Your task to perform on an android device: Go to Google maps Image 0: 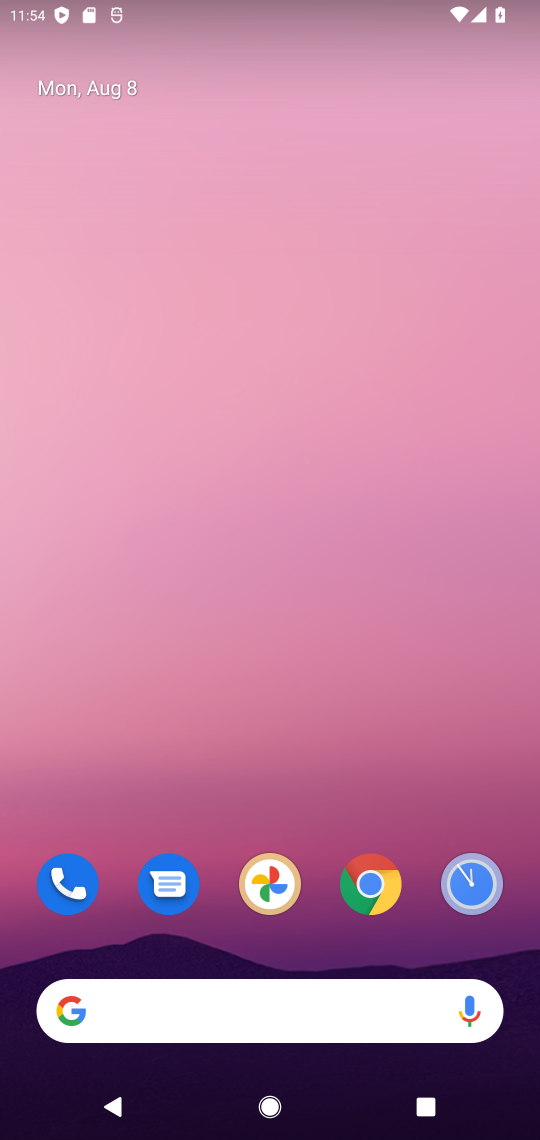
Step 0: drag from (166, 1102) to (263, 261)
Your task to perform on an android device: Go to Google maps Image 1: 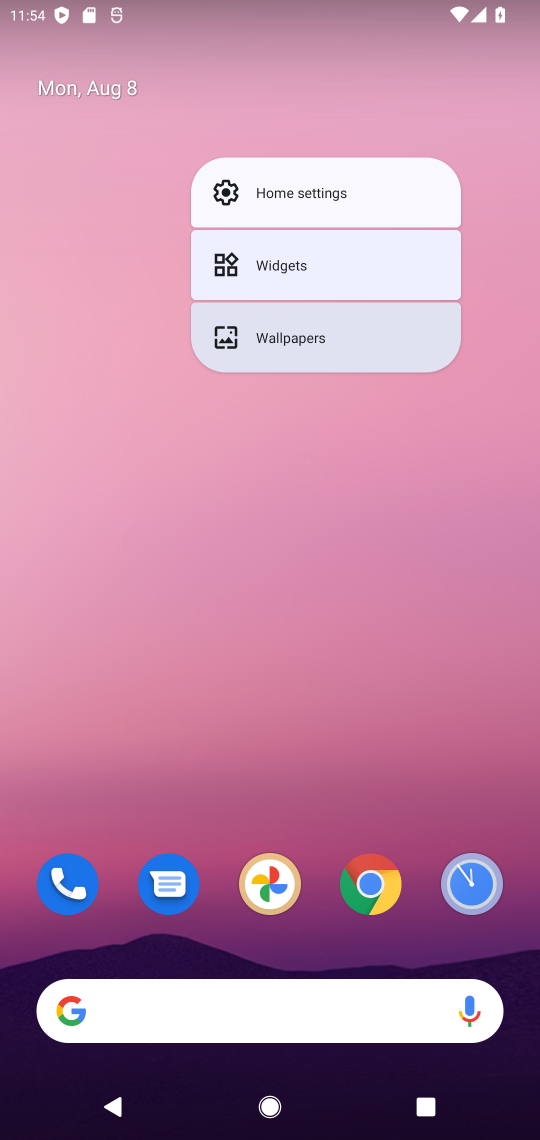
Step 1: drag from (359, 1094) to (369, 360)
Your task to perform on an android device: Go to Google maps Image 2: 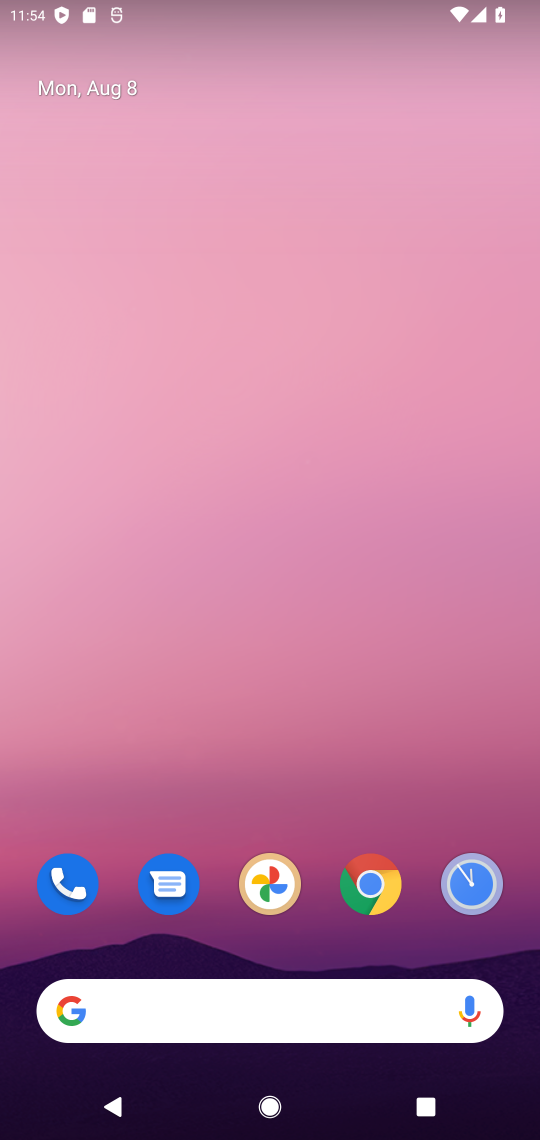
Step 2: drag from (171, 1105) to (275, 262)
Your task to perform on an android device: Go to Google maps Image 3: 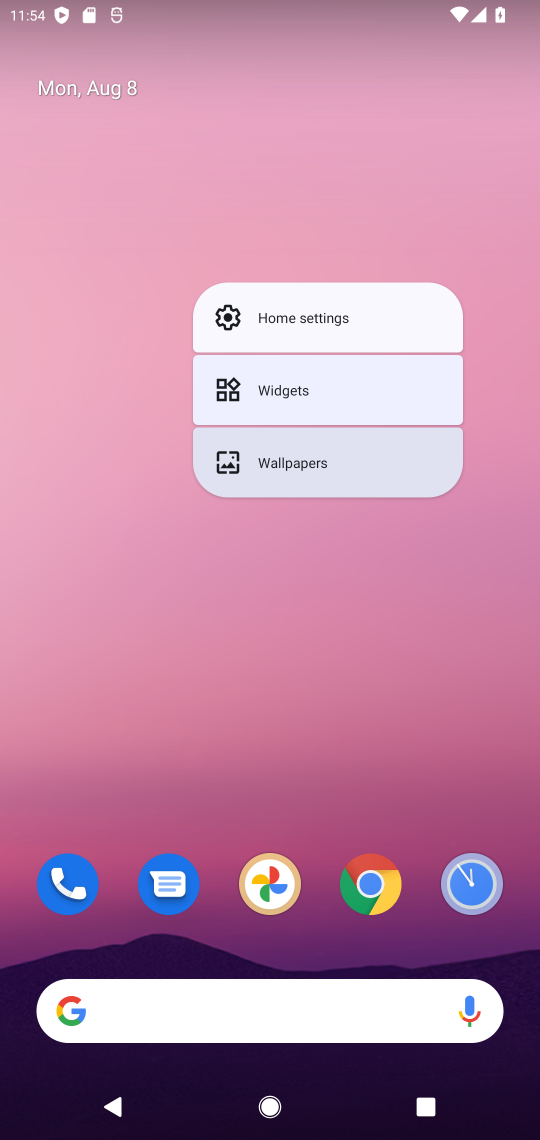
Step 3: drag from (169, 794) to (163, 476)
Your task to perform on an android device: Go to Google maps Image 4: 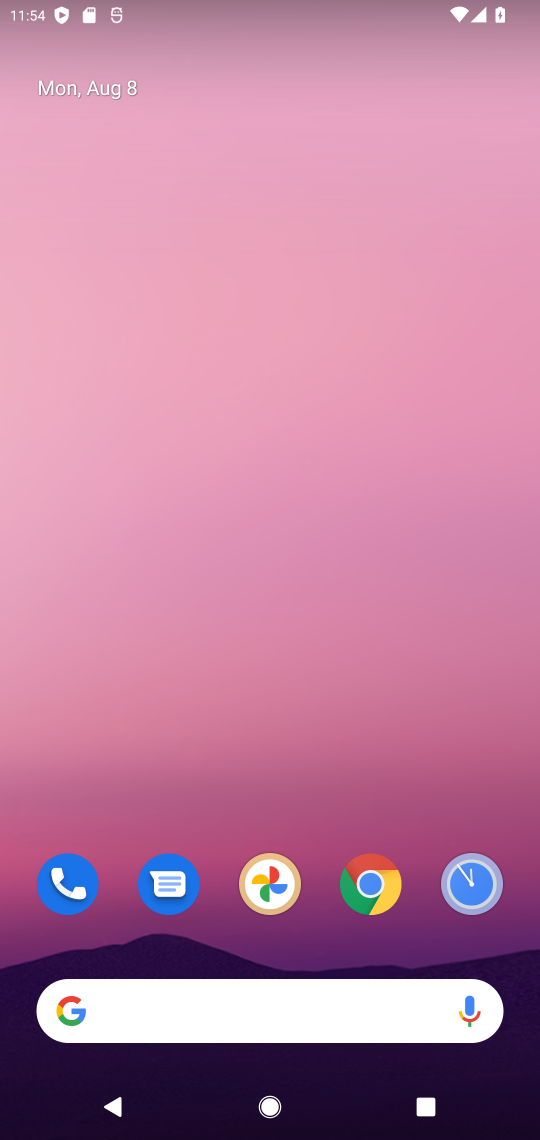
Step 4: drag from (204, 1090) to (269, 251)
Your task to perform on an android device: Go to Google maps Image 5: 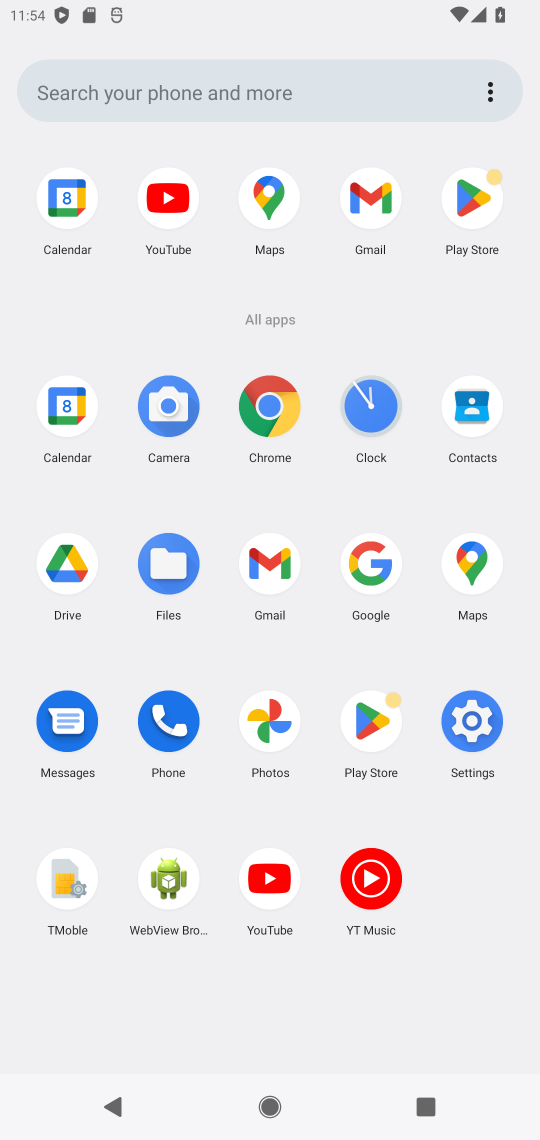
Step 5: click (272, 195)
Your task to perform on an android device: Go to Google maps Image 6: 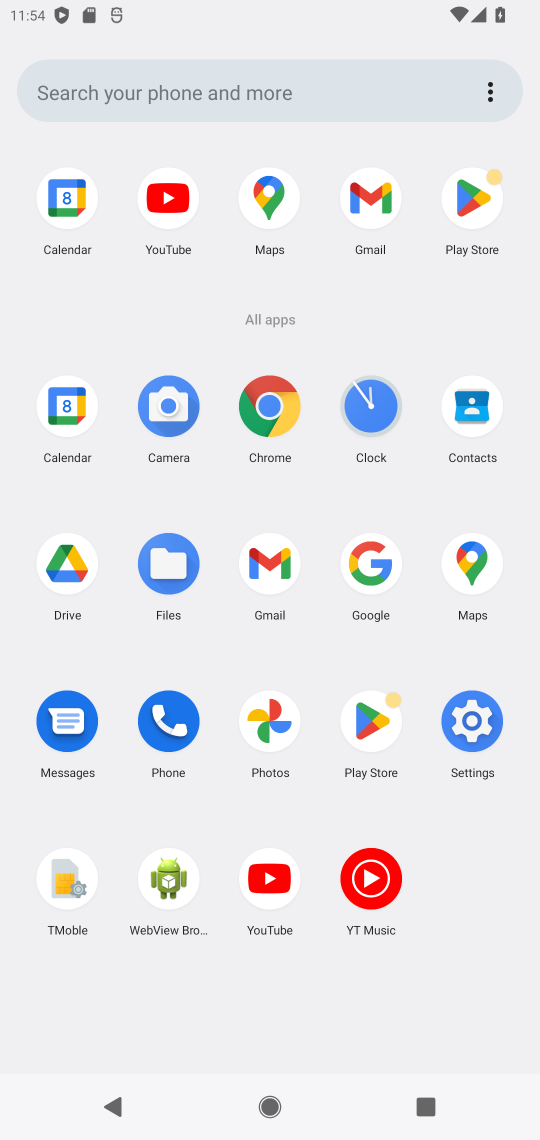
Step 6: click (272, 195)
Your task to perform on an android device: Go to Google maps Image 7: 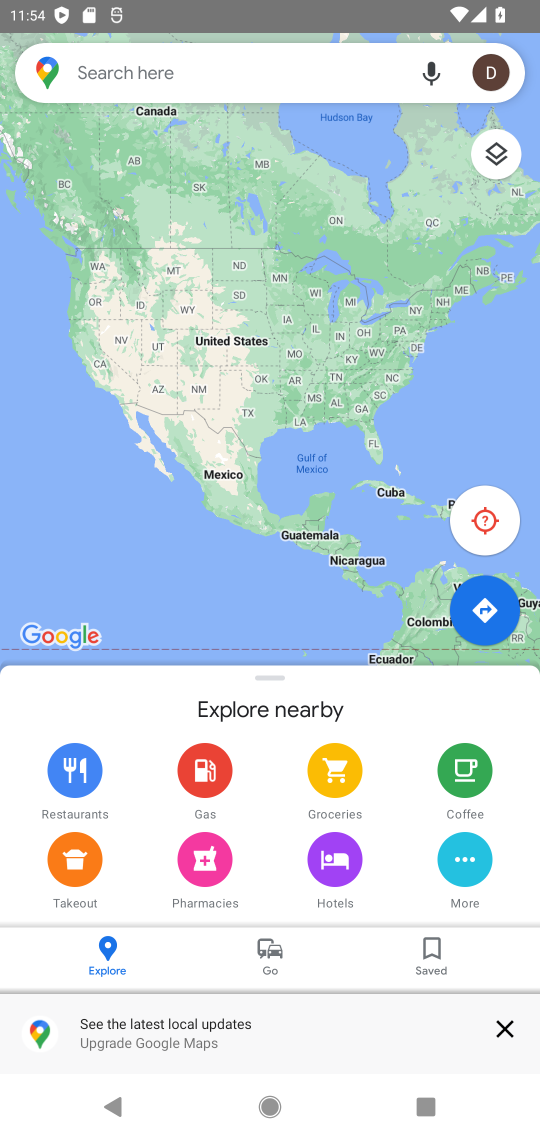
Step 7: task complete